Your task to perform on an android device: turn off location history Image 0: 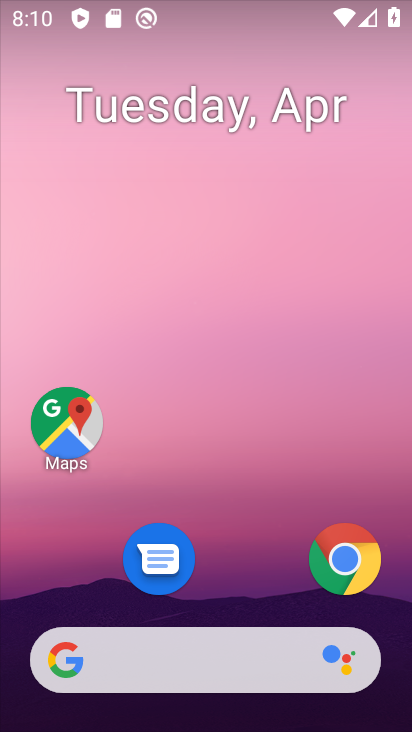
Step 0: drag from (261, 701) to (214, 196)
Your task to perform on an android device: turn off location history Image 1: 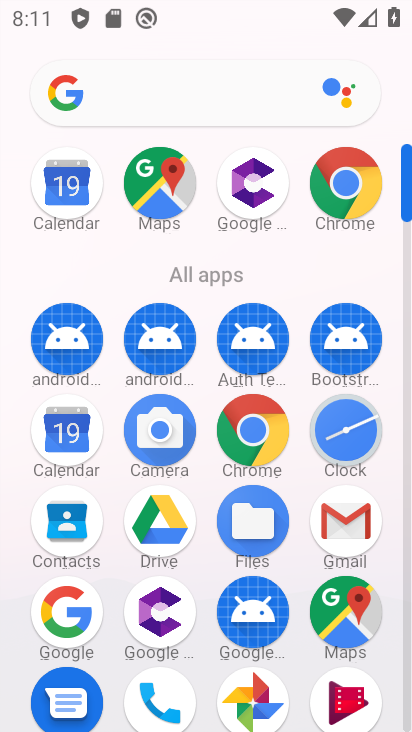
Step 1: drag from (201, 570) to (220, 122)
Your task to perform on an android device: turn off location history Image 2: 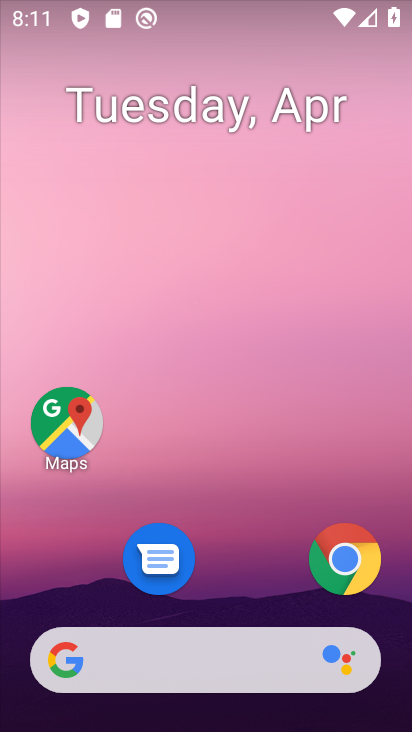
Step 2: drag from (254, 701) to (260, 23)
Your task to perform on an android device: turn off location history Image 3: 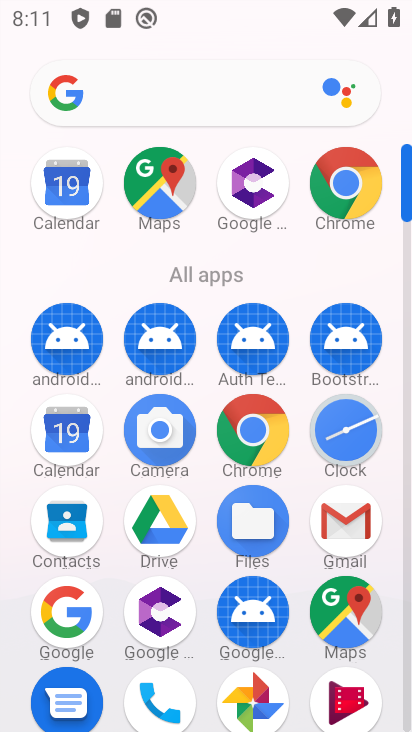
Step 3: drag from (210, 572) to (213, 421)
Your task to perform on an android device: turn off location history Image 4: 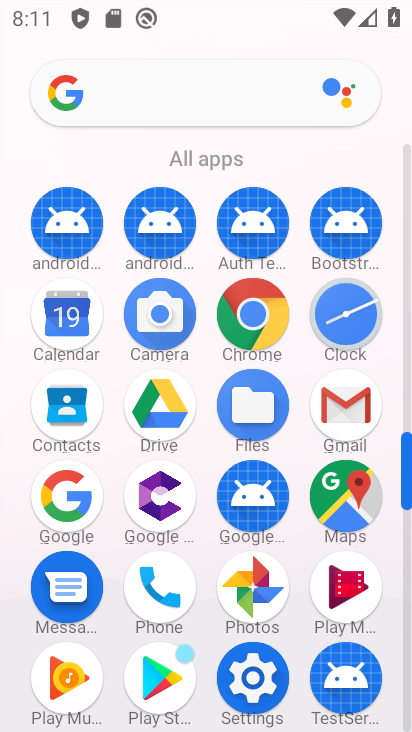
Step 4: click (256, 683)
Your task to perform on an android device: turn off location history Image 5: 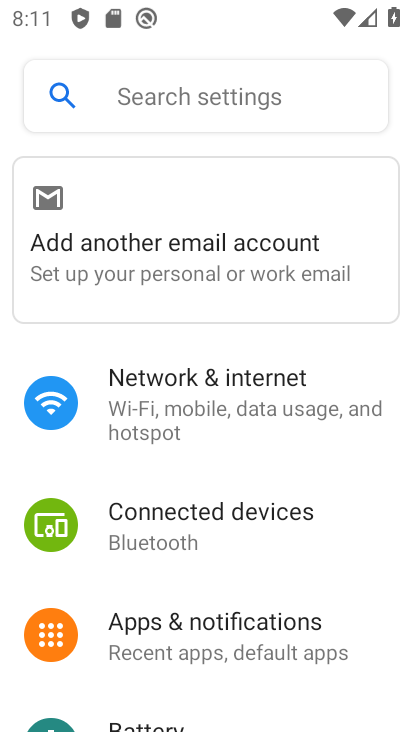
Step 5: click (172, 110)
Your task to perform on an android device: turn off location history Image 6: 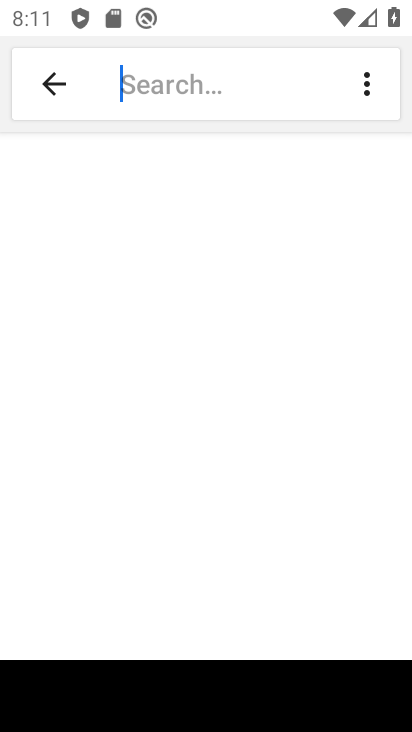
Step 6: drag from (359, 694) to (325, 469)
Your task to perform on an android device: turn off location history Image 7: 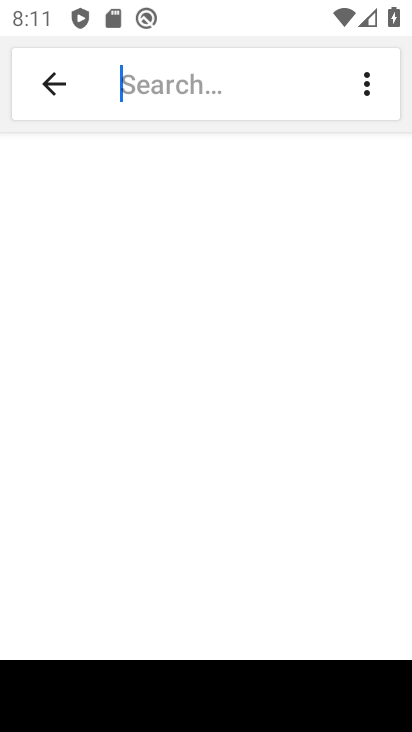
Step 7: drag from (353, 729) to (313, 504)
Your task to perform on an android device: turn off location history Image 8: 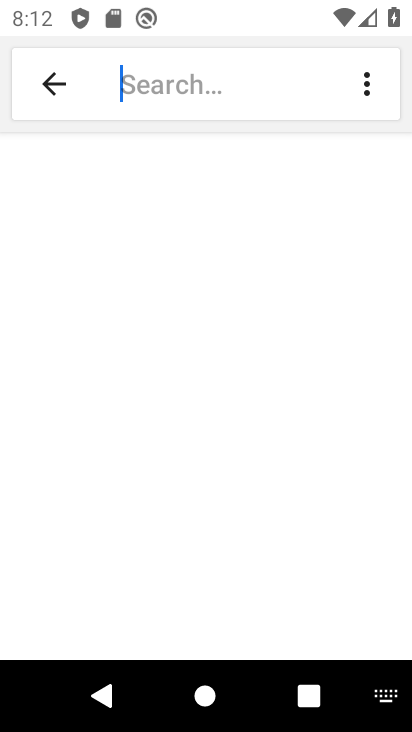
Step 8: click (389, 670)
Your task to perform on an android device: turn off location history Image 9: 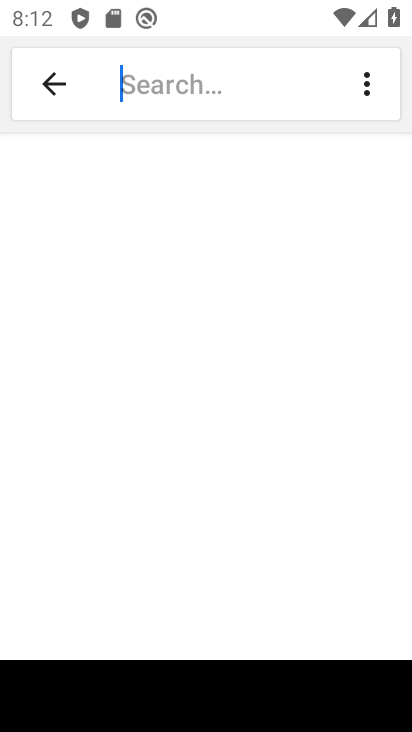
Step 9: click (391, 696)
Your task to perform on an android device: turn off location history Image 10: 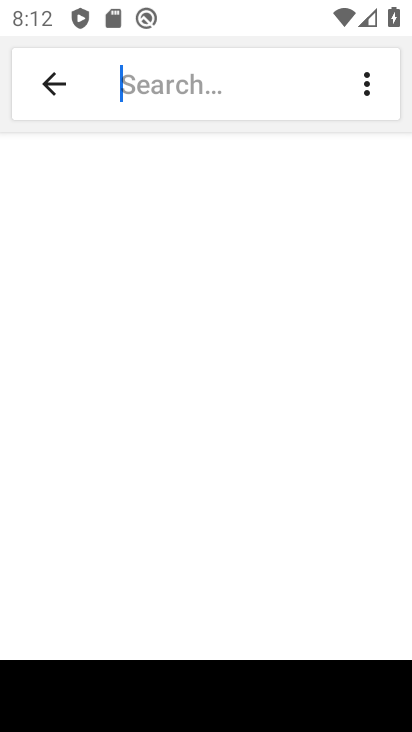
Step 10: drag from (328, 707) to (288, 487)
Your task to perform on an android device: turn off location history Image 11: 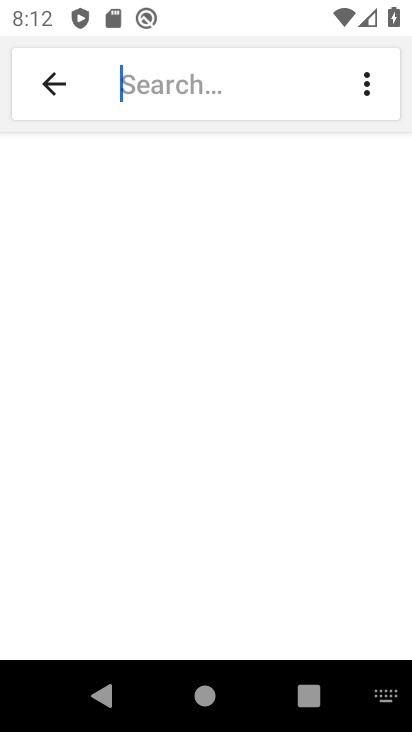
Step 11: click (390, 708)
Your task to perform on an android device: turn off location history Image 12: 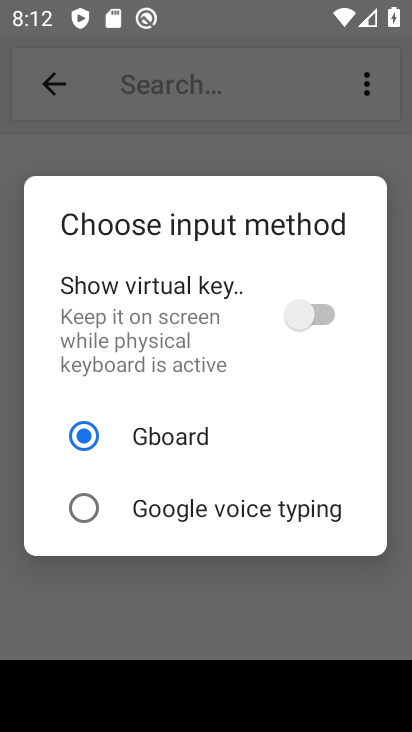
Step 12: click (312, 321)
Your task to perform on an android device: turn off location history Image 13: 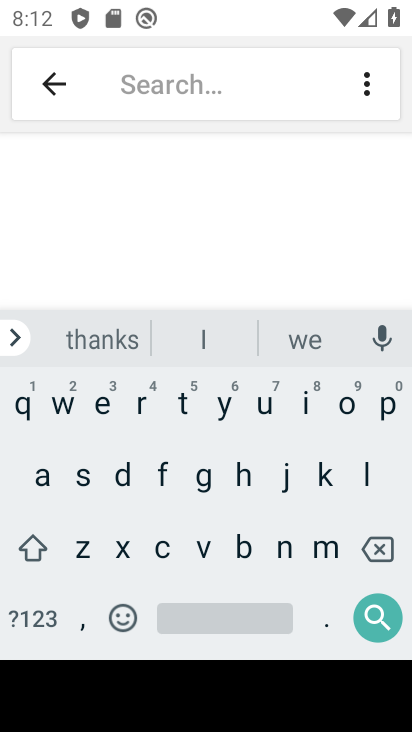
Step 13: click (371, 474)
Your task to perform on an android device: turn off location history Image 14: 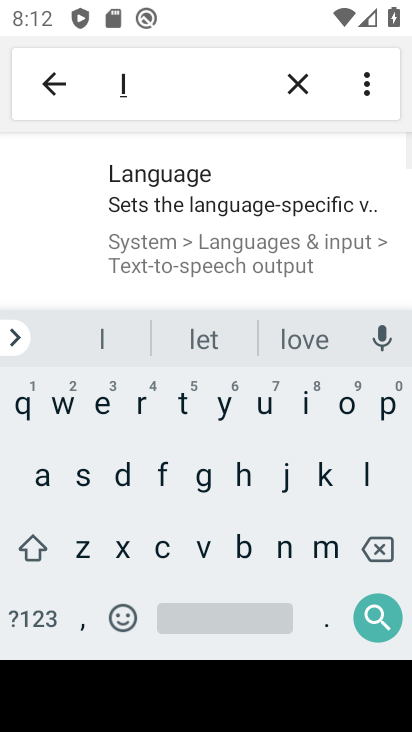
Step 14: click (345, 410)
Your task to perform on an android device: turn off location history Image 15: 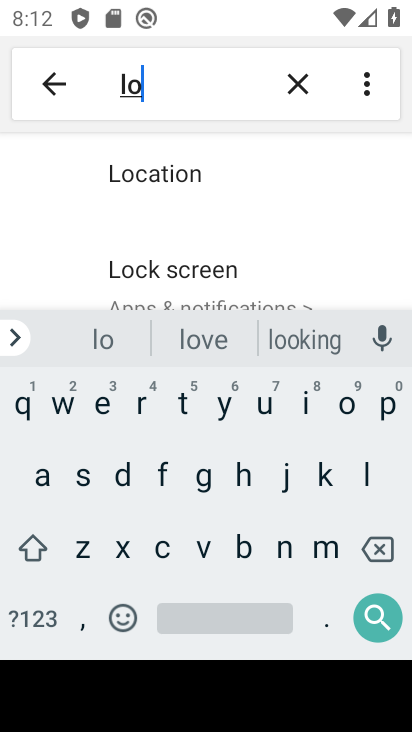
Step 15: press back button
Your task to perform on an android device: turn off location history Image 16: 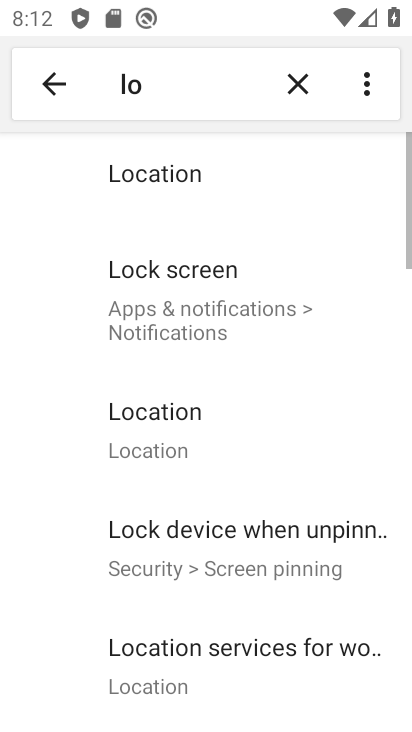
Step 16: click (177, 430)
Your task to perform on an android device: turn off location history Image 17: 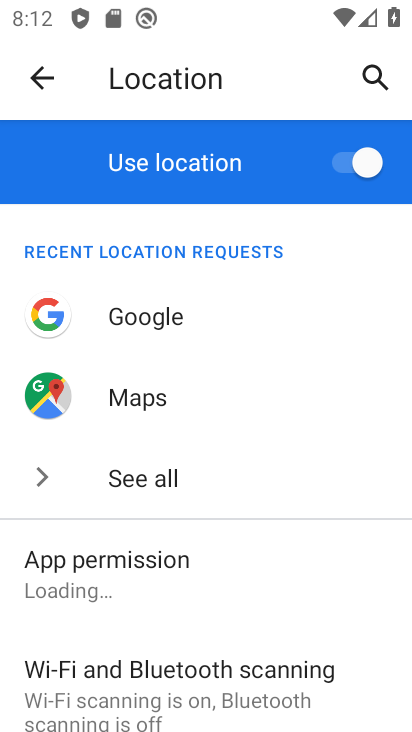
Step 17: drag from (222, 575) to (244, 303)
Your task to perform on an android device: turn off location history Image 18: 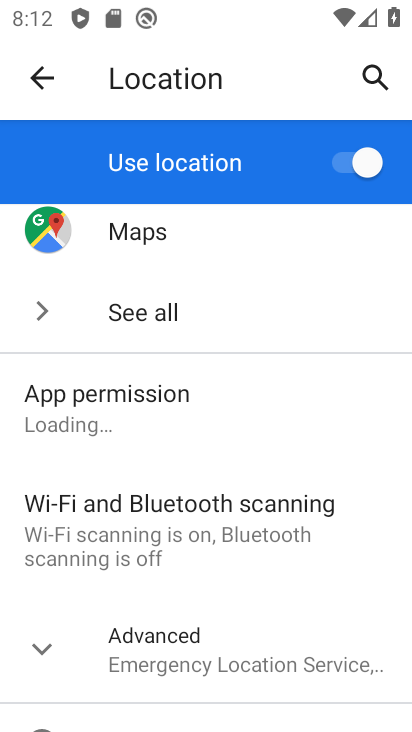
Step 18: click (48, 647)
Your task to perform on an android device: turn off location history Image 19: 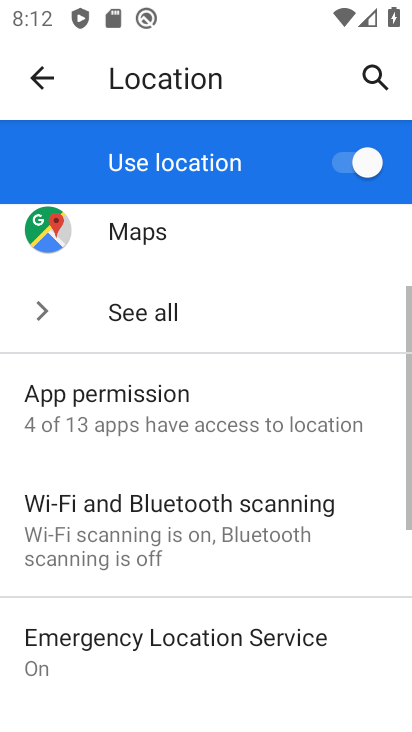
Step 19: drag from (191, 600) to (215, 307)
Your task to perform on an android device: turn off location history Image 20: 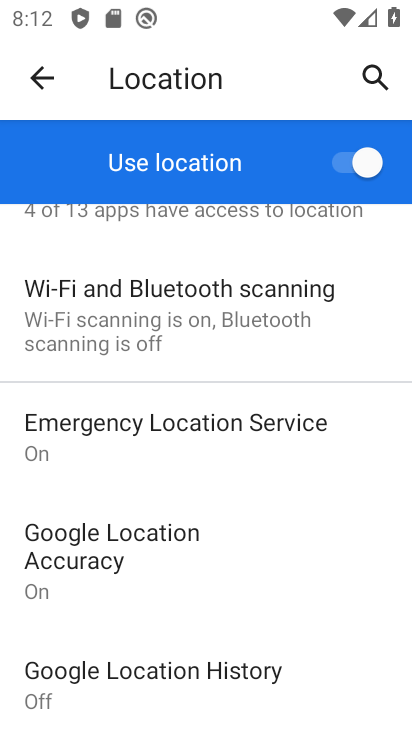
Step 20: click (135, 669)
Your task to perform on an android device: turn off location history Image 21: 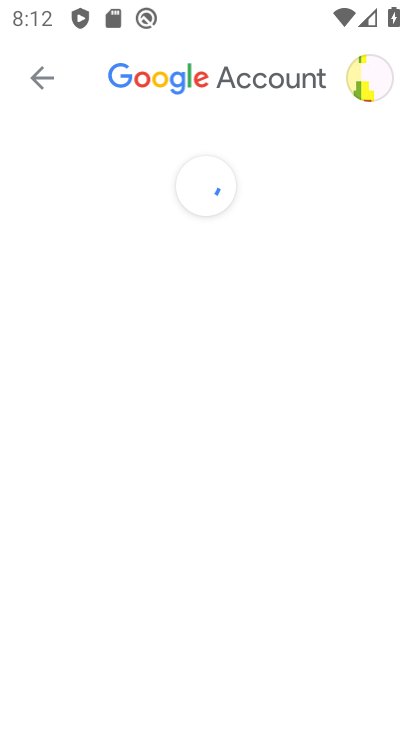
Step 21: drag from (181, 671) to (203, 116)
Your task to perform on an android device: turn off location history Image 22: 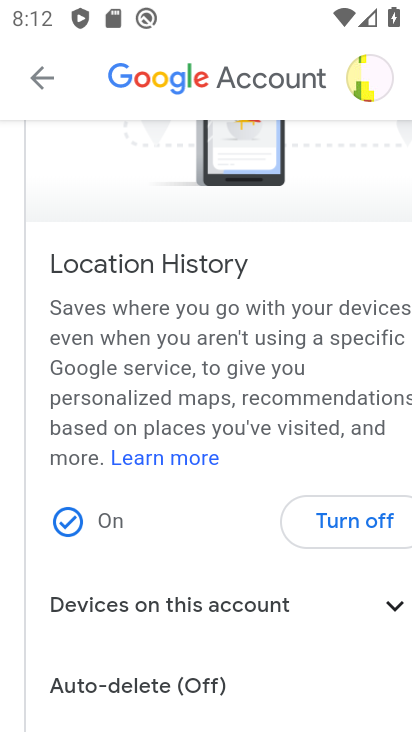
Step 22: click (351, 522)
Your task to perform on an android device: turn off location history Image 23: 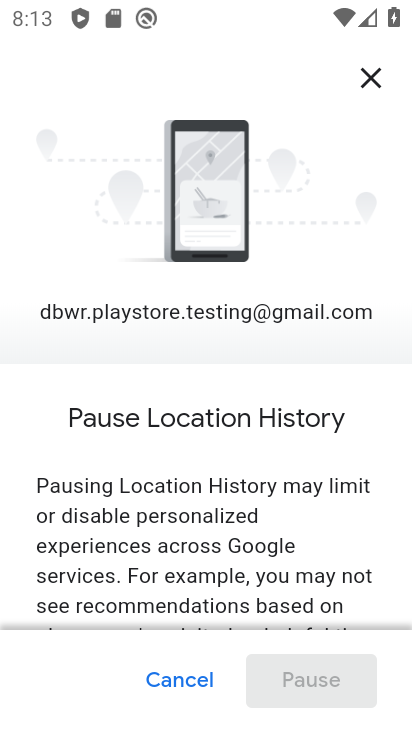
Step 23: task complete